Your task to perform on an android device: Go to battery settings Image 0: 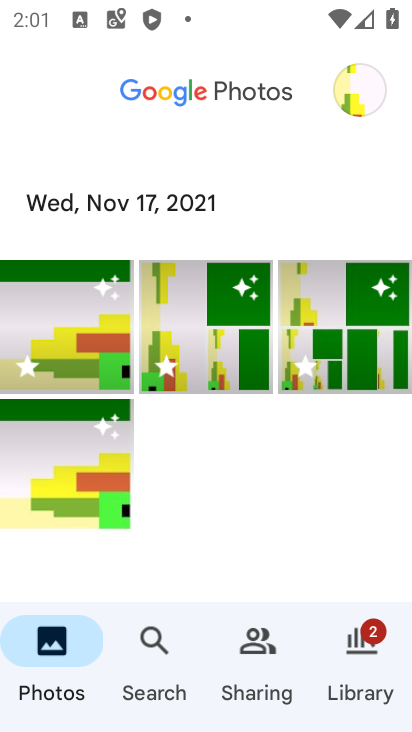
Step 0: press home button
Your task to perform on an android device: Go to battery settings Image 1: 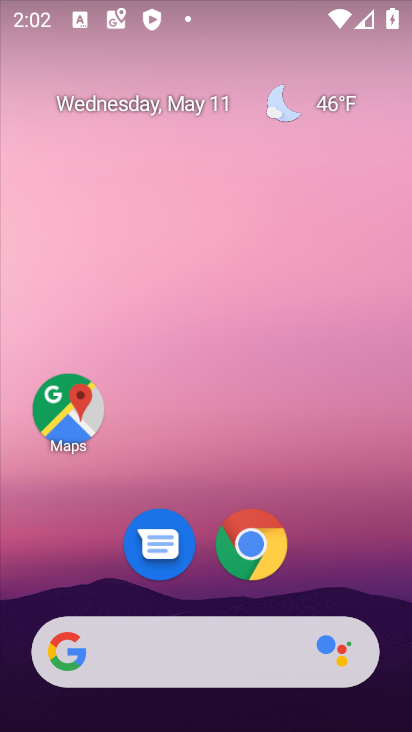
Step 1: drag from (399, 639) to (245, 168)
Your task to perform on an android device: Go to battery settings Image 2: 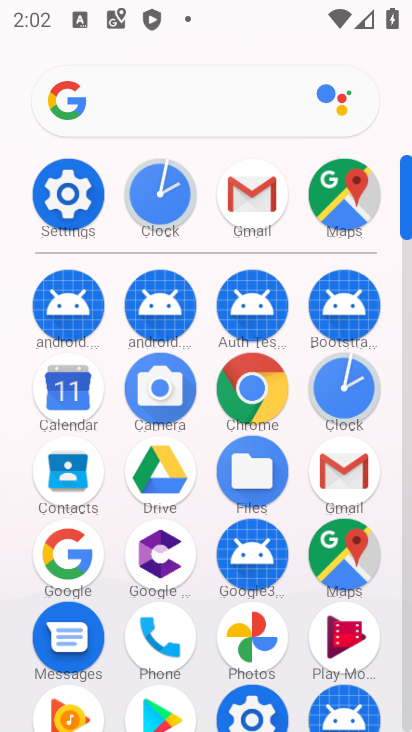
Step 2: click (406, 706)
Your task to perform on an android device: Go to battery settings Image 3: 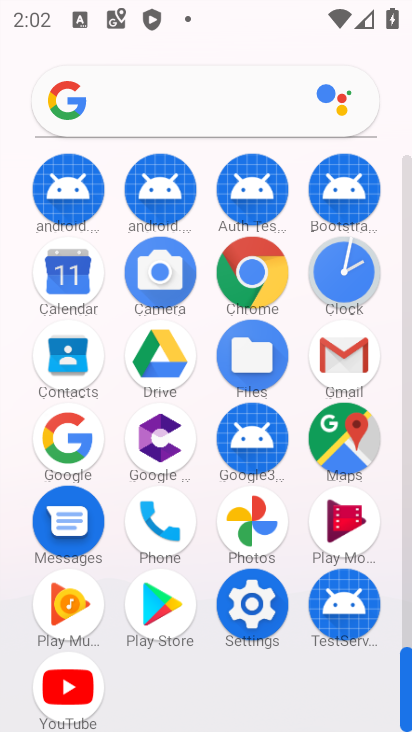
Step 3: click (253, 601)
Your task to perform on an android device: Go to battery settings Image 4: 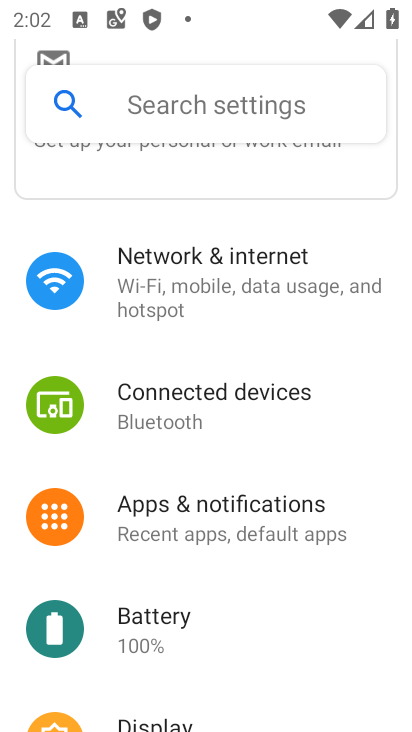
Step 4: click (141, 611)
Your task to perform on an android device: Go to battery settings Image 5: 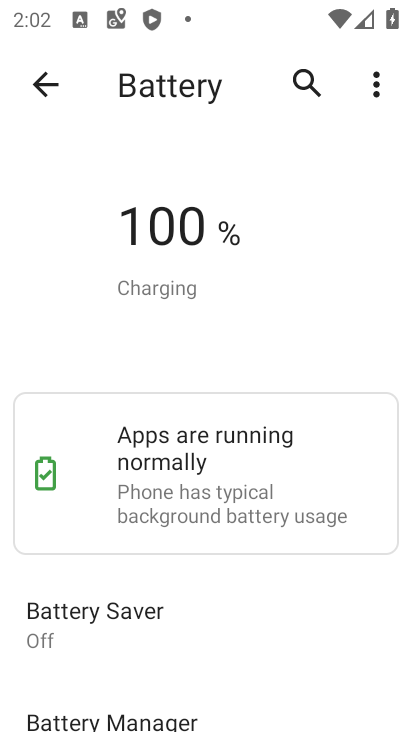
Step 5: task complete